Your task to perform on an android device: see tabs open on other devices in the chrome app Image 0: 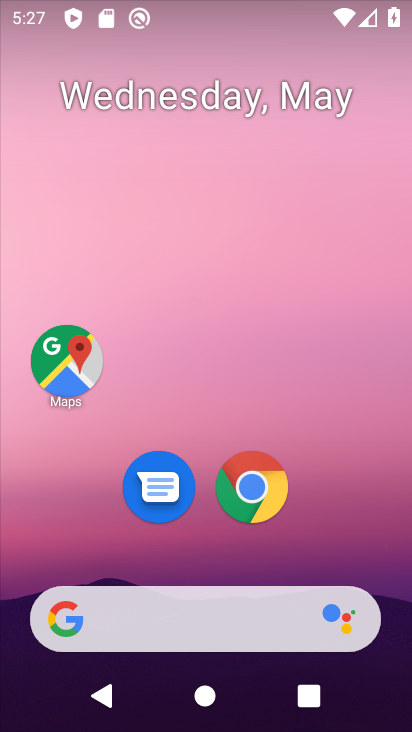
Step 0: drag from (187, 564) to (198, 60)
Your task to perform on an android device: see tabs open on other devices in the chrome app Image 1: 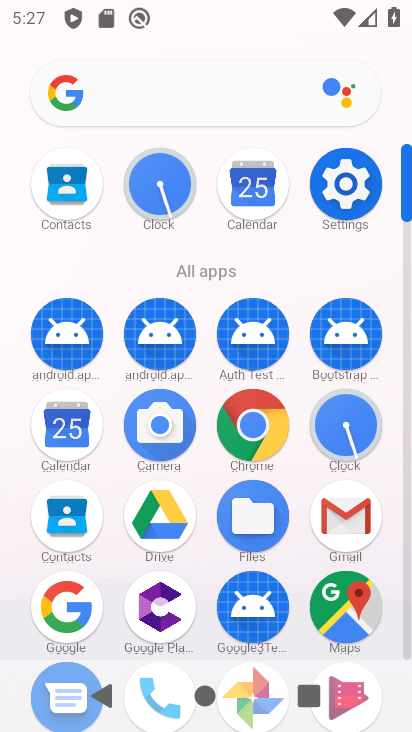
Step 1: click (262, 466)
Your task to perform on an android device: see tabs open on other devices in the chrome app Image 2: 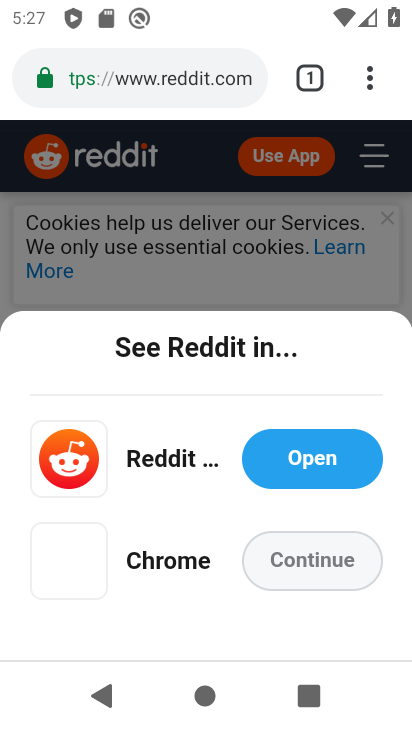
Step 2: click (368, 88)
Your task to perform on an android device: see tabs open on other devices in the chrome app Image 3: 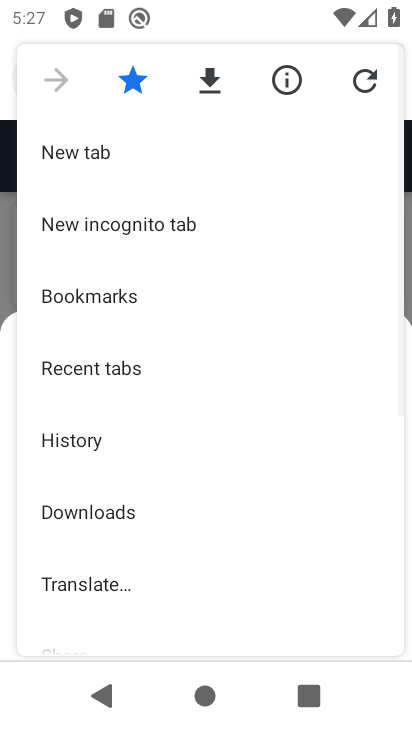
Step 3: click (114, 381)
Your task to perform on an android device: see tabs open on other devices in the chrome app Image 4: 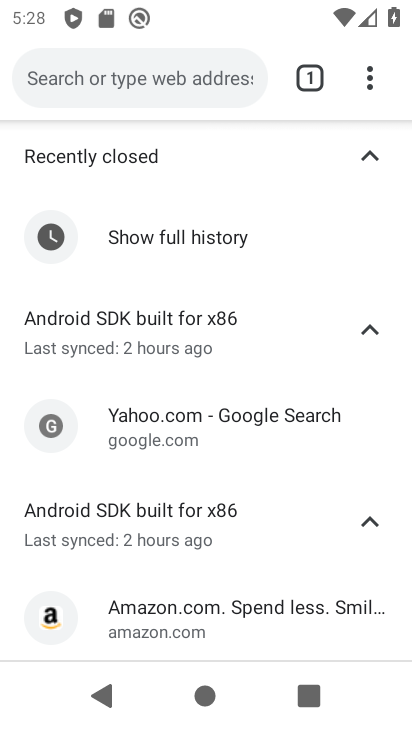
Step 4: task complete